Your task to perform on an android device: See recent photos Image 0: 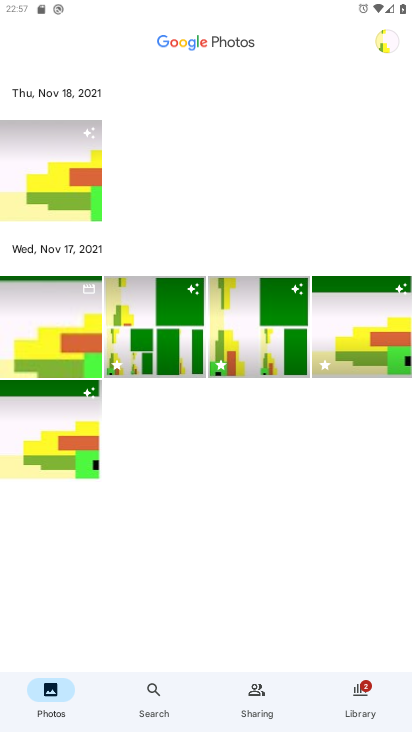
Step 0: drag from (194, 598) to (214, 206)
Your task to perform on an android device: See recent photos Image 1: 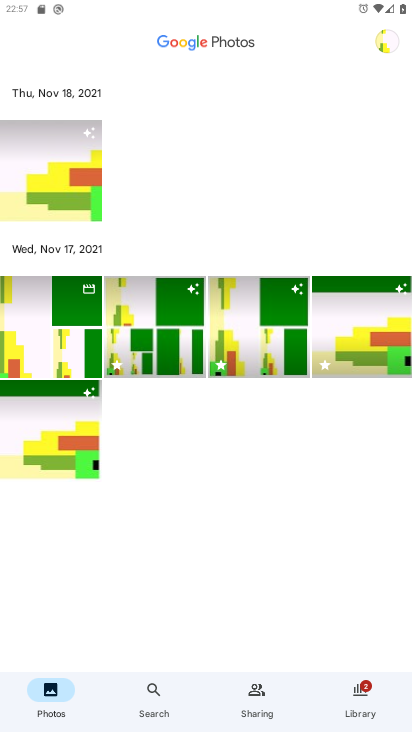
Step 1: task complete